Your task to perform on an android device: move a message to another label in the gmail app Image 0: 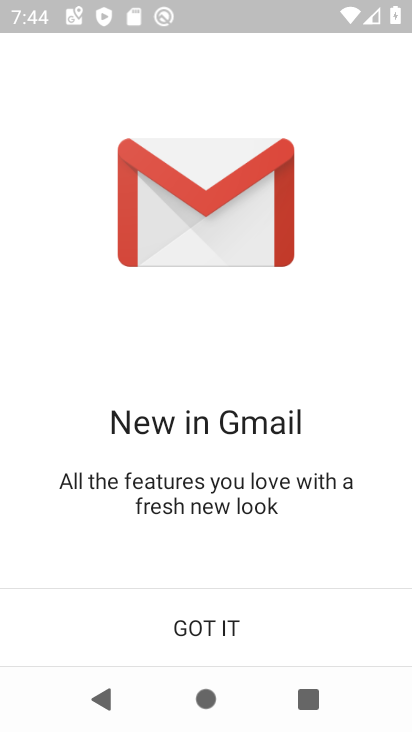
Step 0: press home button
Your task to perform on an android device: move a message to another label in the gmail app Image 1: 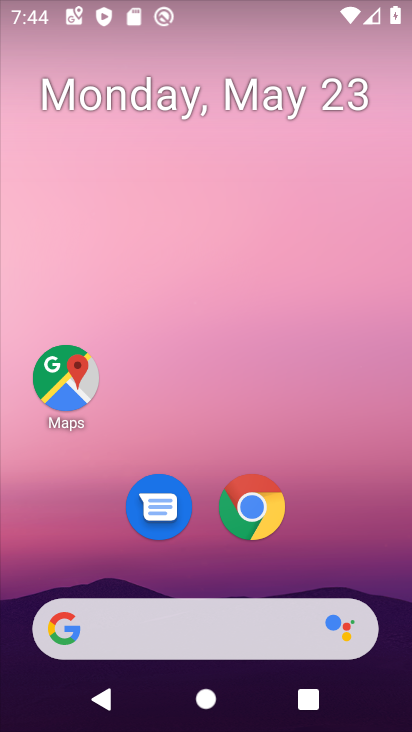
Step 1: drag from (314, 518) to (279, 141)
Your task to perform on an android device: move a message to another label in the gmail app Image 2: 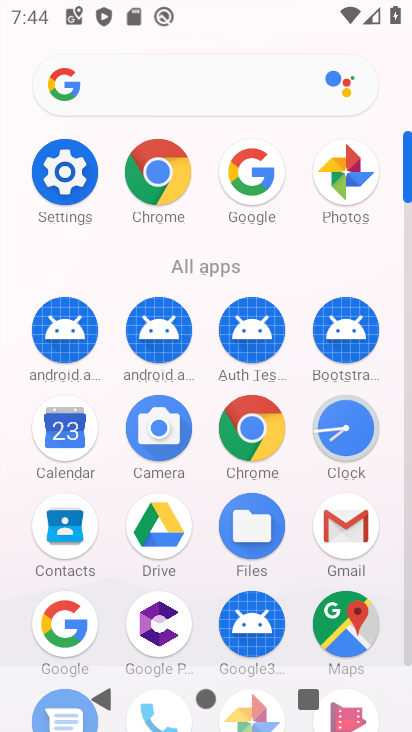
Step 2: click (350, 528)
Your task to perform on an android device: move a message to another label in the gmail app Image 3: 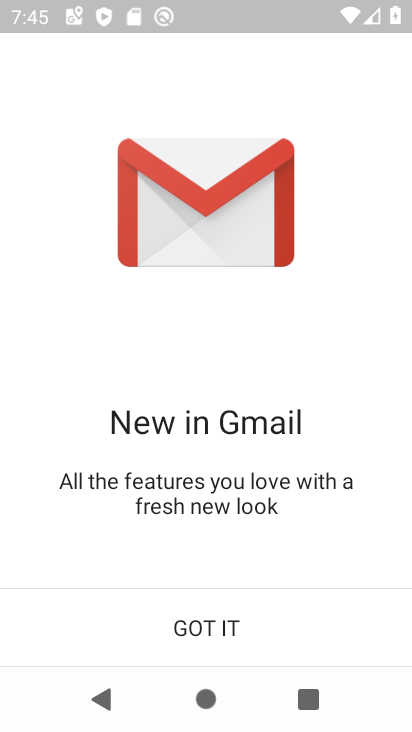
Step 3: click (170, 623)
Your task to perform on an android device: move a message to another label in the gmail app Image 4: 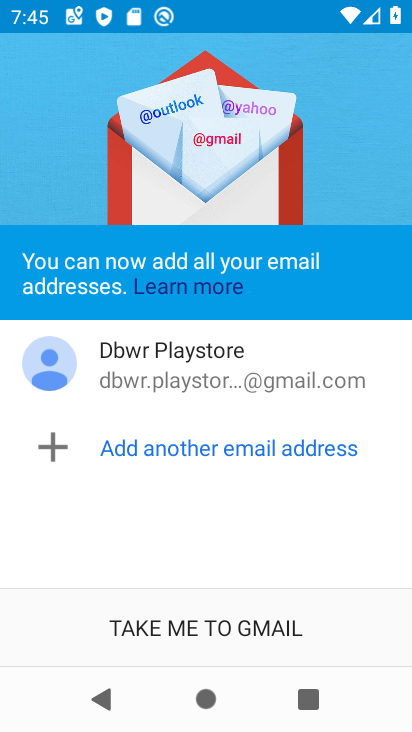
Step 4: click (170, 623)
Your task to perform on an android device: move a message to another label in the gmail app Image 5: 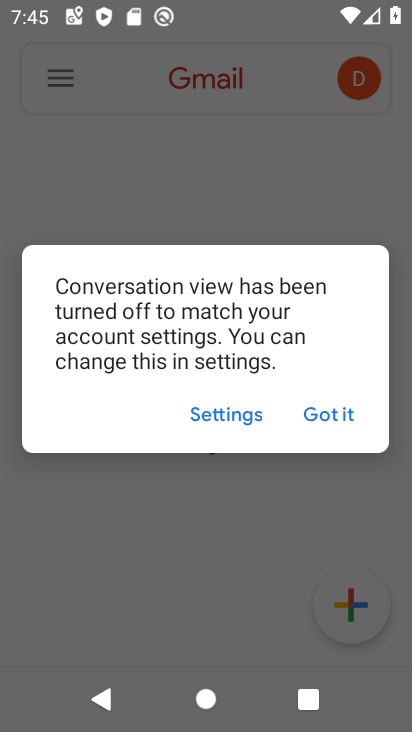
Step 5: click (335, 419)
Your task to perform on an android device: move a message to another label in the gmail app Image 6: 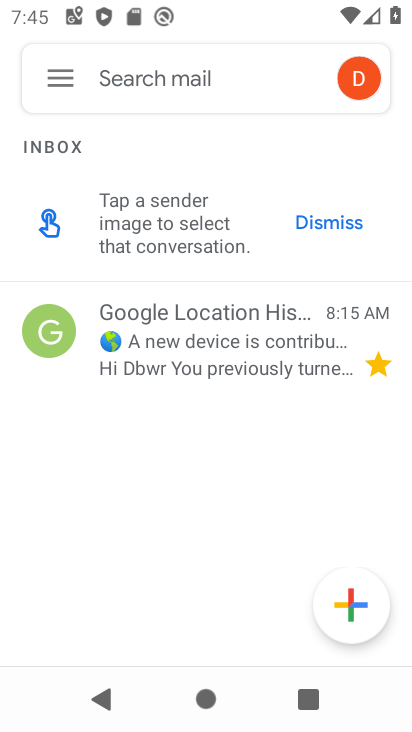
Step 6: click (253, 337)
Your task to perform on an android device: move a message to another label in the gmail app Image 7: 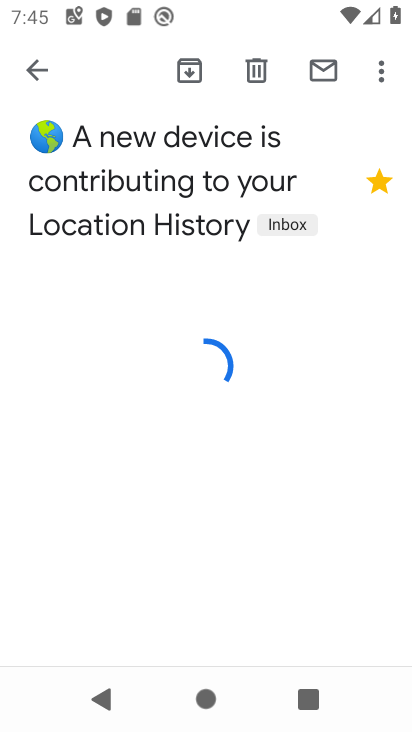
Step 7: click (398, 81)
Your task to perform on an android device: move a message to another label in the gmail app Image 8: 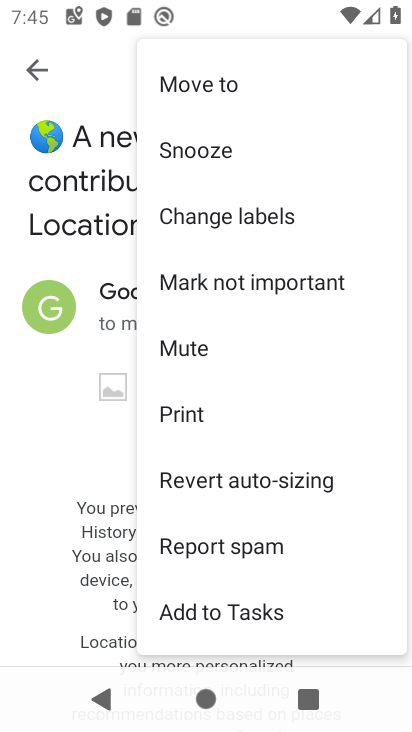
Step 8: click (196, 83)
Your task to perform on an android device: move a message to another label in the gmail app Image 9: 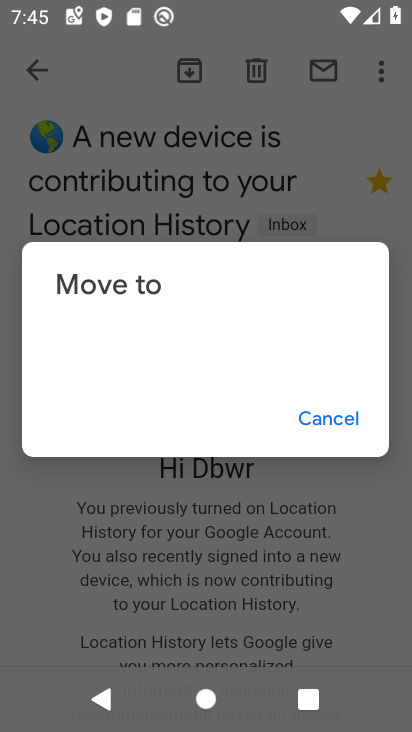
Step 9: task complete